Your task to perform on an android device: Go to accessibility settings Image 0: 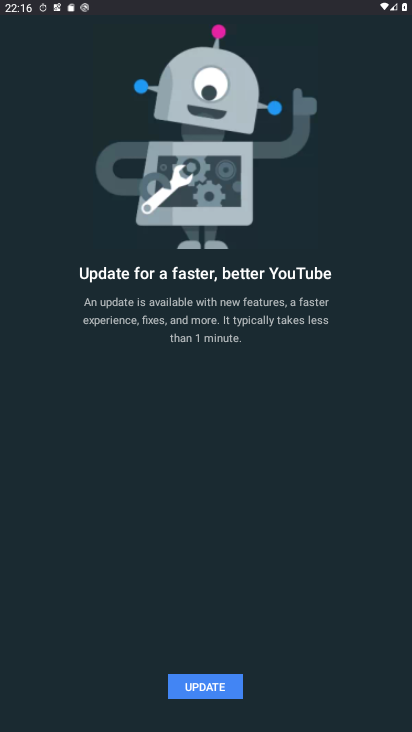
Step 0: press home button
Your task to perform on an android device: Go to accessibility settings Image 1: 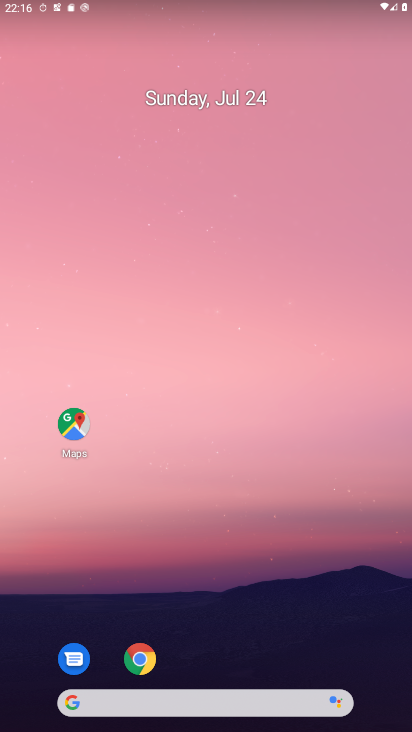
Step 1: drag from (235, 726) to (219, 227)
Your task to perform on an android device: Go to accessibility settings Image 2: 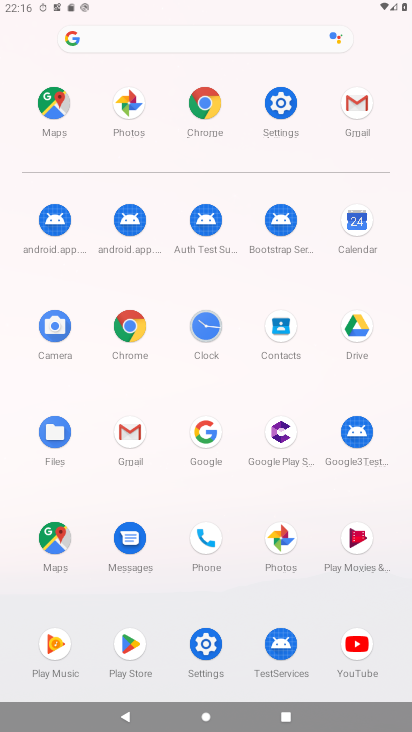
Step 2: click (272, 101)
Your task to perform on an android device: Go to accessibility settings Image 3: 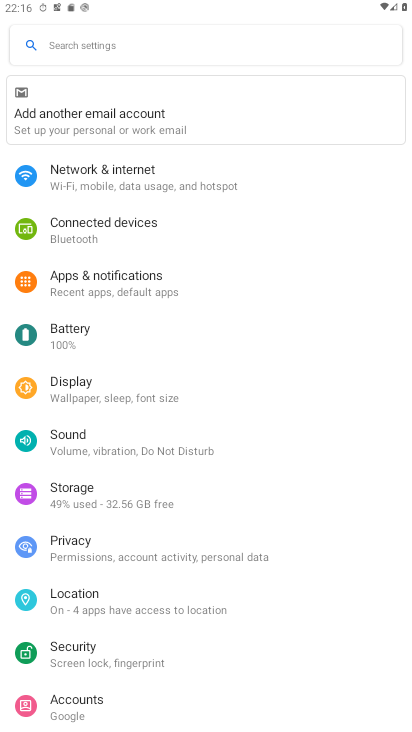
Step 3: drag from (93, 674) to (105, 306)
Your task to perform on an android device: Go to accessibility settings Image 4: 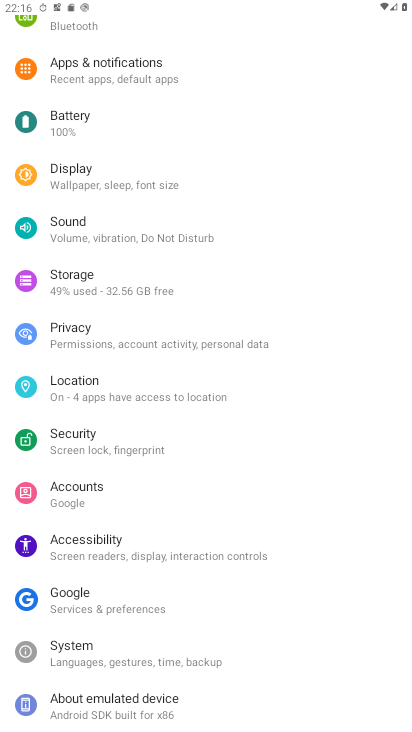
Step 4: click (104, 541)
Your task to perform on an android device: Go to accessibility settings Image 5: 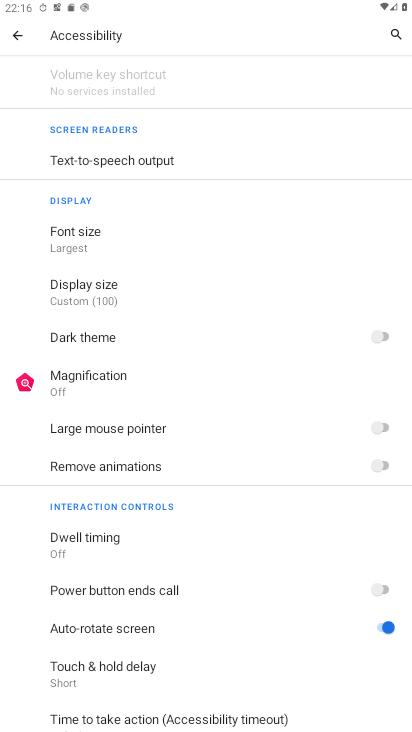
Step 5: task complete